Your task to perform on an android device: open a new tab in the chrome app Image 0: 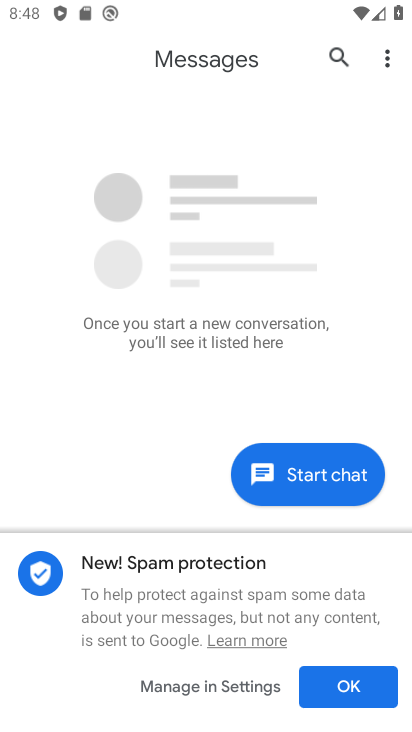
Step 0: press home button
Your task to perform on an android device: open a new tab in the chrome app Image 1: 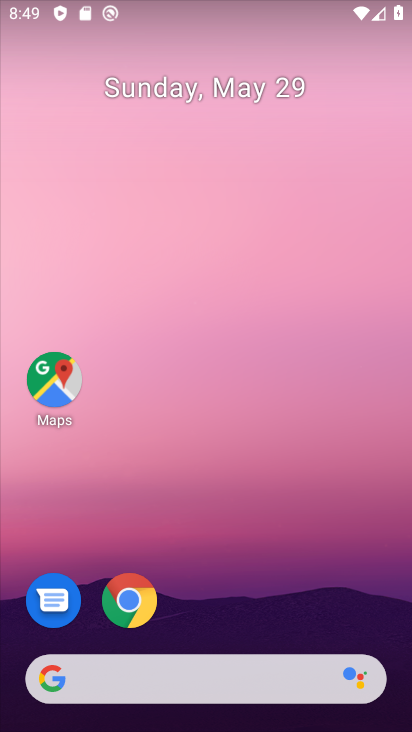
Step 1: click (129, 599)
Your task to perform on an android device: open a new tab in the chrome app Image 2: 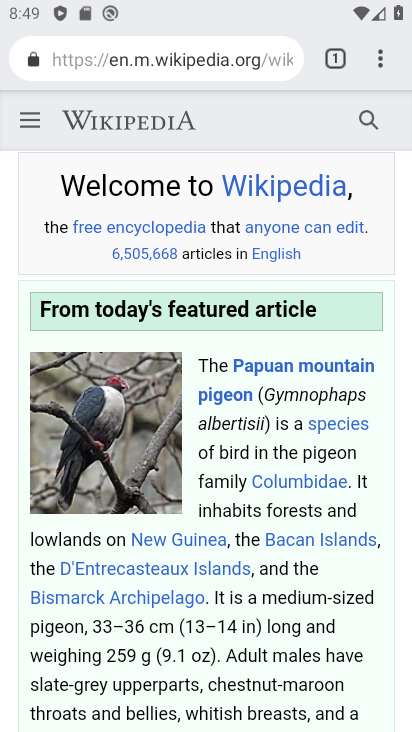
Step 2: click (382, 64)
Your task to perform on an android device: open a new tab in the chrome app Image 3: 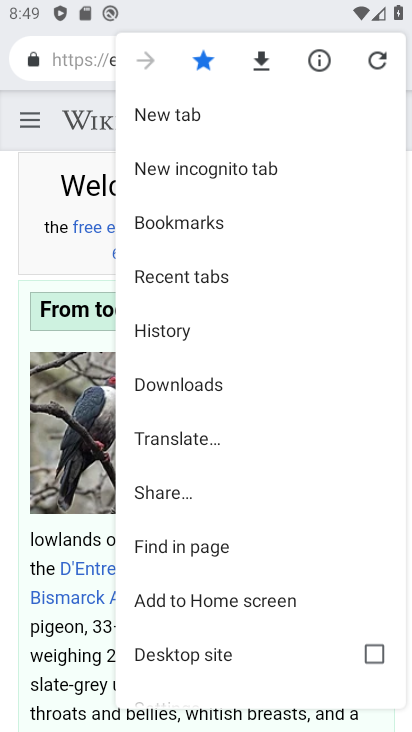
Step 3: click (178, 114)
Your task to perform on an android device: open a new tab in the chrome app Image 4: 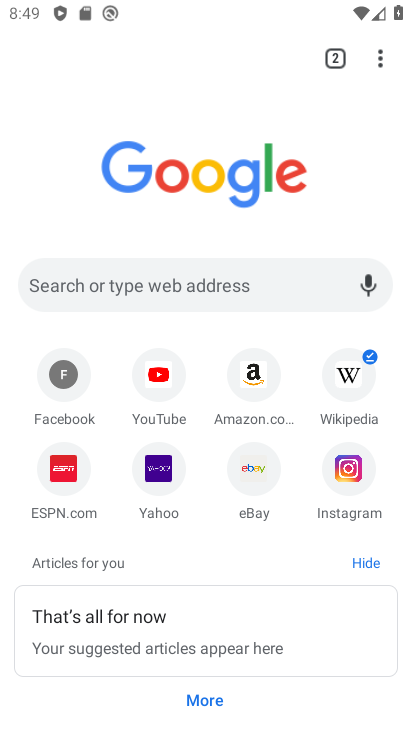
Step 4: task complete